Your task to perform on an android device: turn off data saver in the chrome app Image 0: 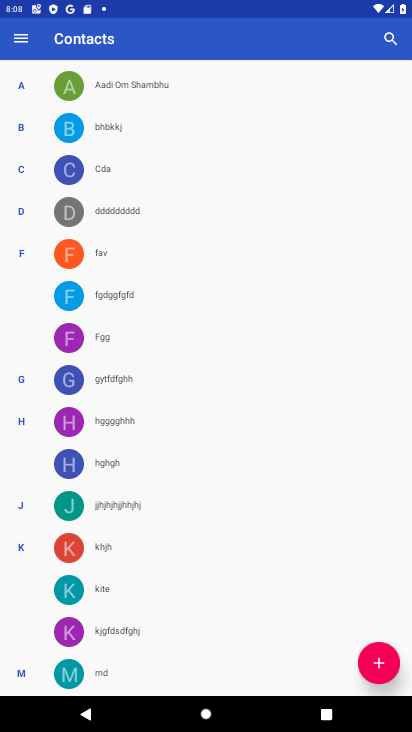
Step 0: press home button
Your task to perform on an android device: turn off data saver in the chrome app Image 1: 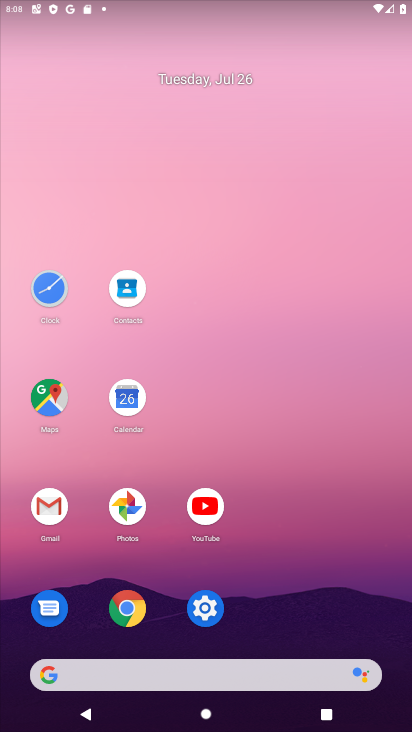
Step 1: click (133, 617)
Your task to perform on an android device: turn off data saver in the chrome app Image 2: 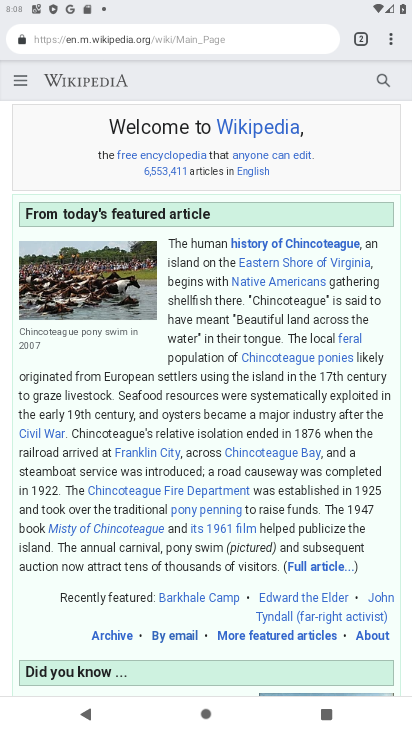
Step 2: click (394, 40)
Your task to perform on an android device: turn off data saver in the chrome app Image 3: 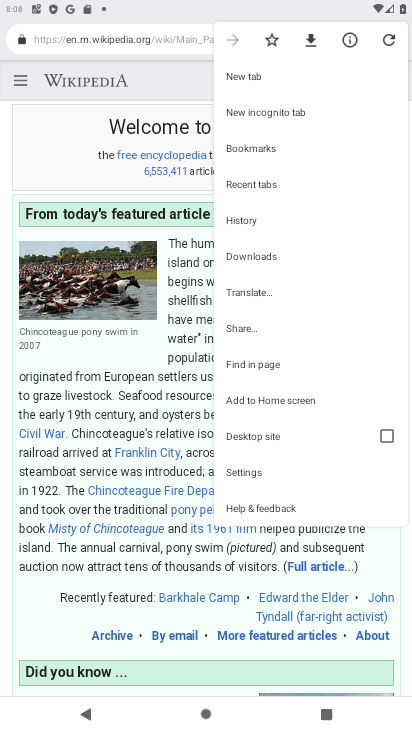
Step 3: click (248, 471)
Your task to perform on an android device: turn off data saver in the chrome app Image 4: 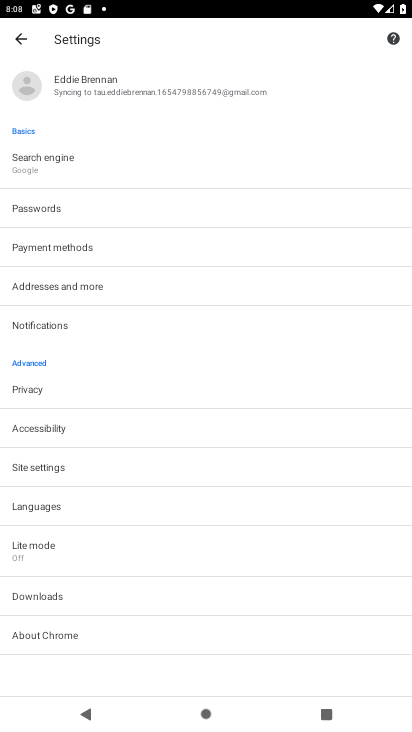
Step 4: click (37, 543)
Your task to perform on an android device: turn off data saver in the chrome app Image 5: 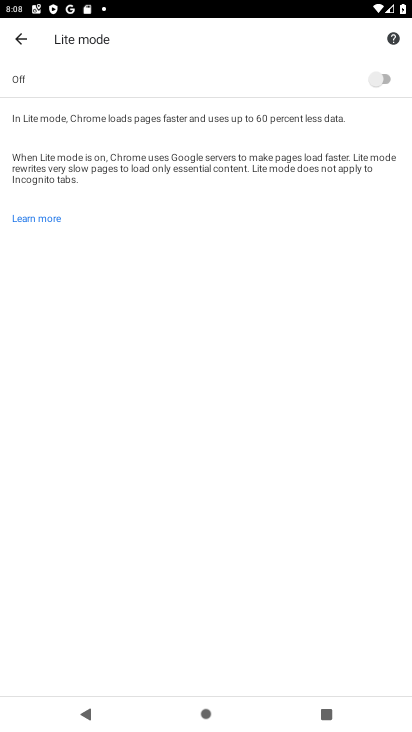
Step 5: task complete